Your task to perform on an android device: turn off priority inbox in the gmail app Image 0: 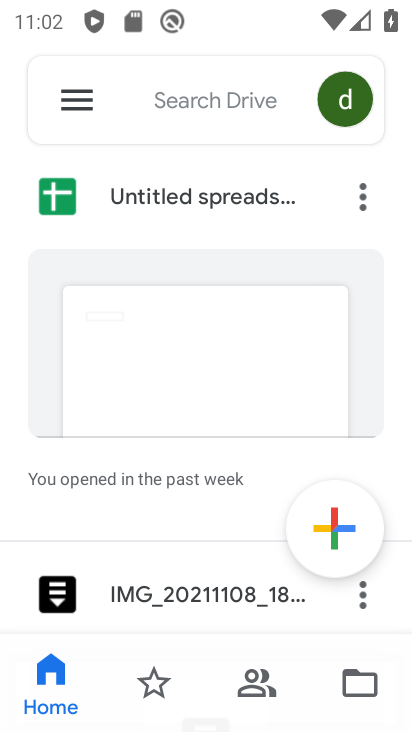
Step 0: press home button
Your task to perform on an android device: turn off priority inbox in the gmail app Image 1: 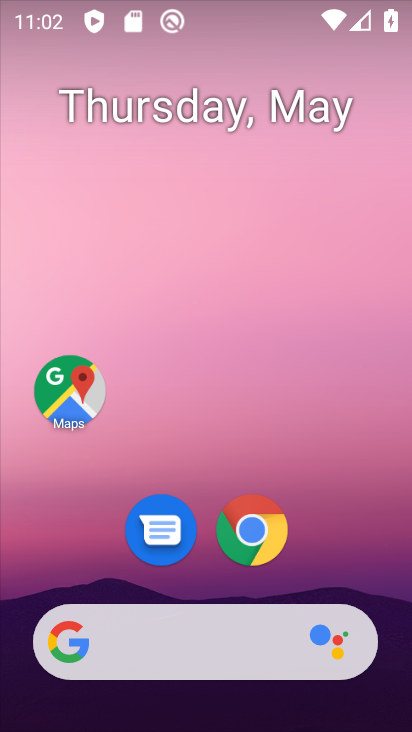
Step 1: drag from (336, 510) to (301, 148)
Your task to perform on an android device: turn off priority inbox in the gmail app Image 2: 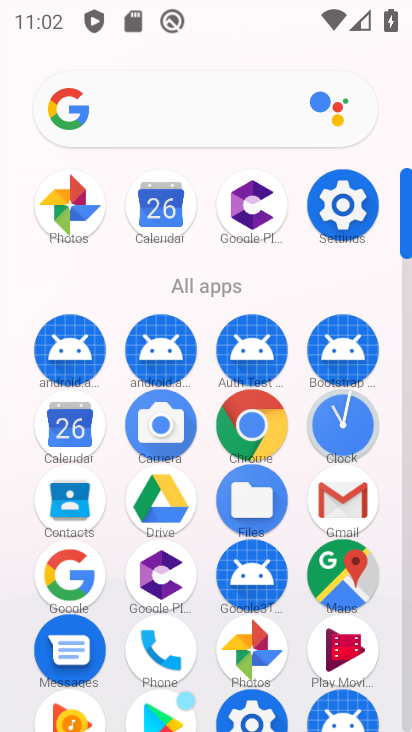
Step 2: click (319, 504)
Your task to perform on an android device: turn off priority inbox in the gmail app Image 3: 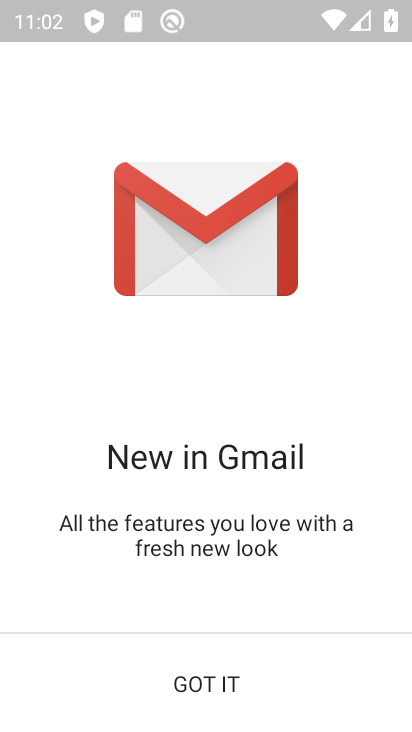
Step 3: click (217, 654)
Your task to perform on an android device: turn off priority inbox in the gmail app Image 4: 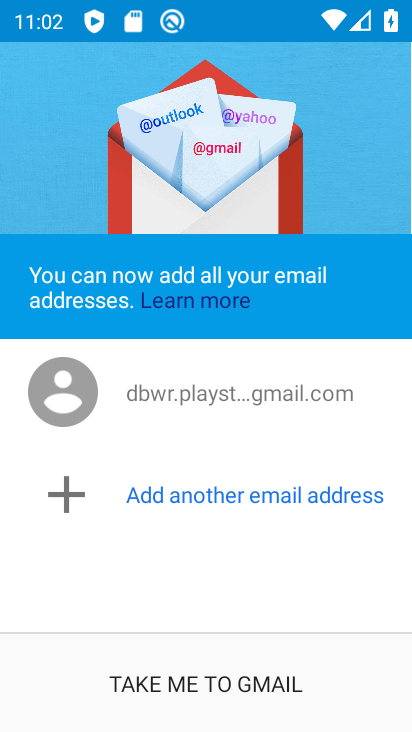
Step 4: click (217, 654)
Your task to perform on an android device: turn off priority inbox in the gmail app Image 5: 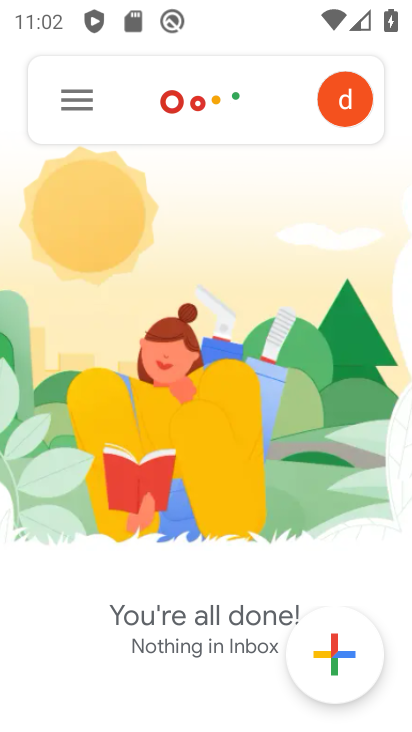
Step 5: click (83, 108)
Your task to perform on an android device: turn off priority inbox in the gmail app Image 6: 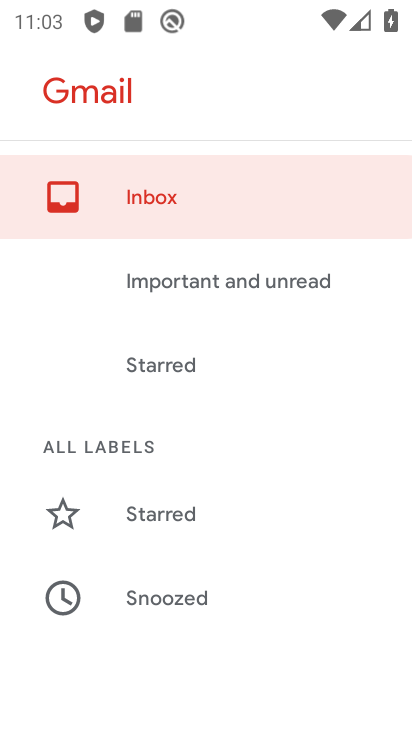
Step 6: drag from (196, 575) to (173, 194)
Your task to perform on an android device: turn off priority inbox in the gmail app Image 7: 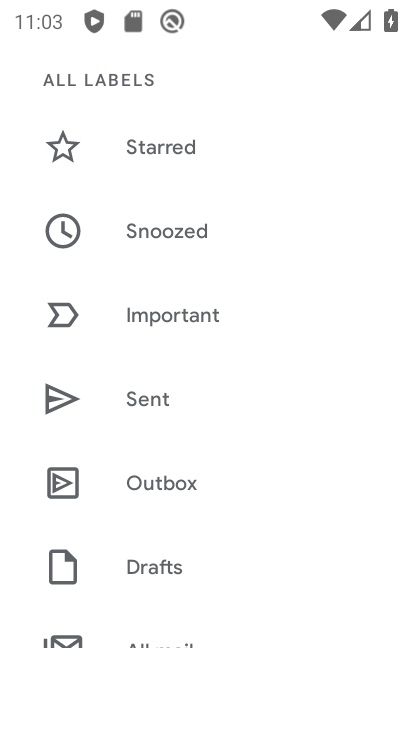
Step 7: drag from (221, 708) to (181, 327)
Your task to perform on an android device: turn off priority inbox in the gmail app Image 8: 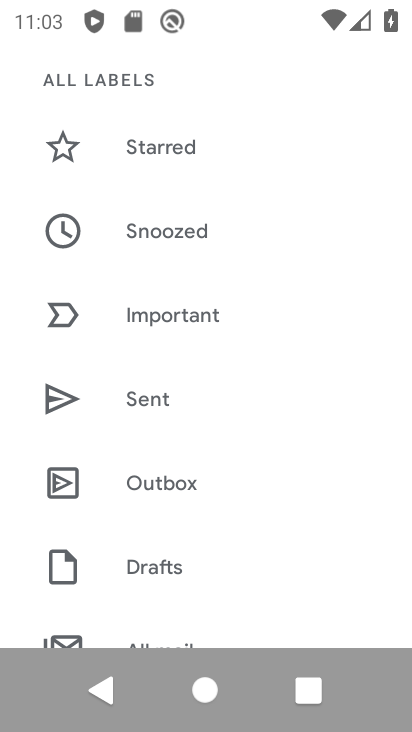
Step 8: drag from (234, 511) to (177, 190)
Your task to perform on an android device: turn off priority inbox in the gmail app Image 9: 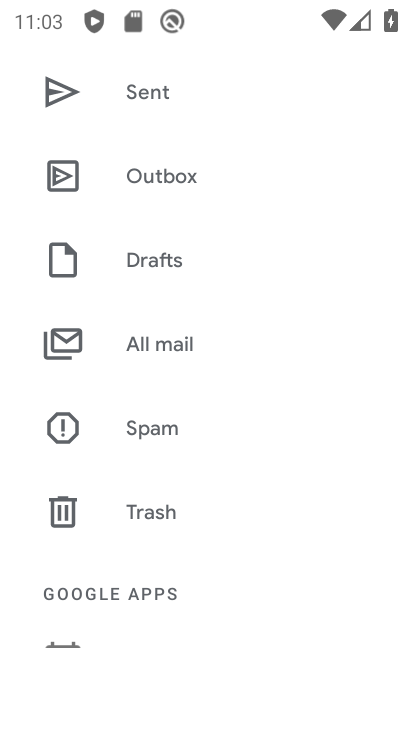
Step 9: drag from (216, 643) to (196, 396)
Your task to perform on an android device: turn off priority inbox in the gmail app Image 10: 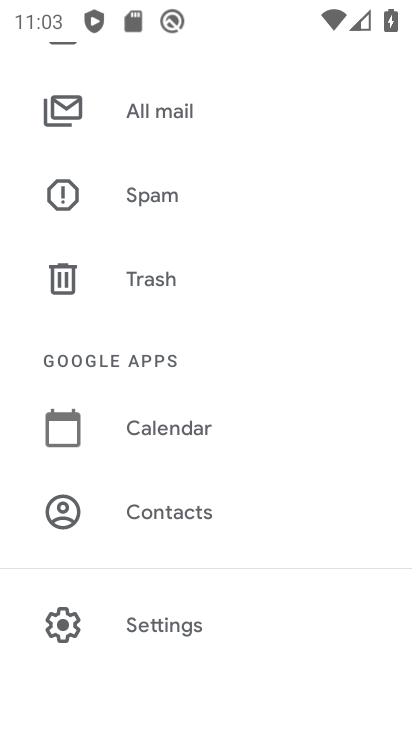
Step 10: click (186, 625)
Your task to perform on an android device: turn off priority inbox in the gmail app Image 11: 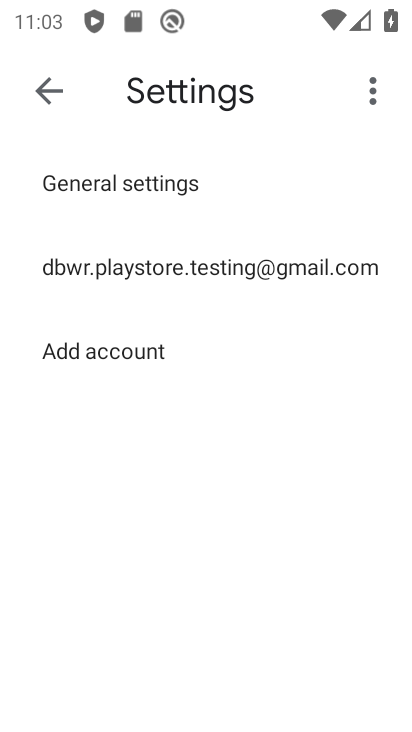
Step 11: click (144, 266)
Your task to perform on an android device: turn off priority inbox in the gmail app Image 12: 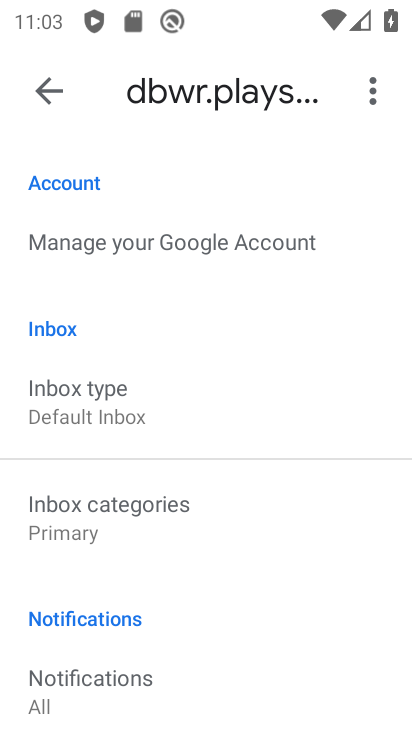
Step 12: click (184, 395)
Your task to perform on an android device: turn off priority inbox in the gmail app Image 13: 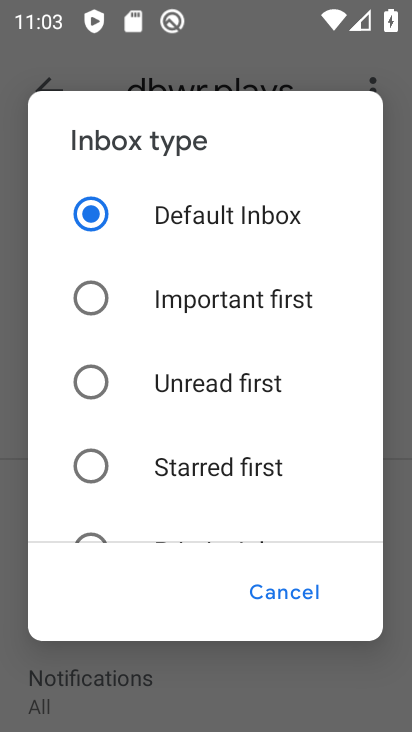
Step 13: task complete